Your task to perform on an android device: Clear the shopping cart on ebay. Image 0: 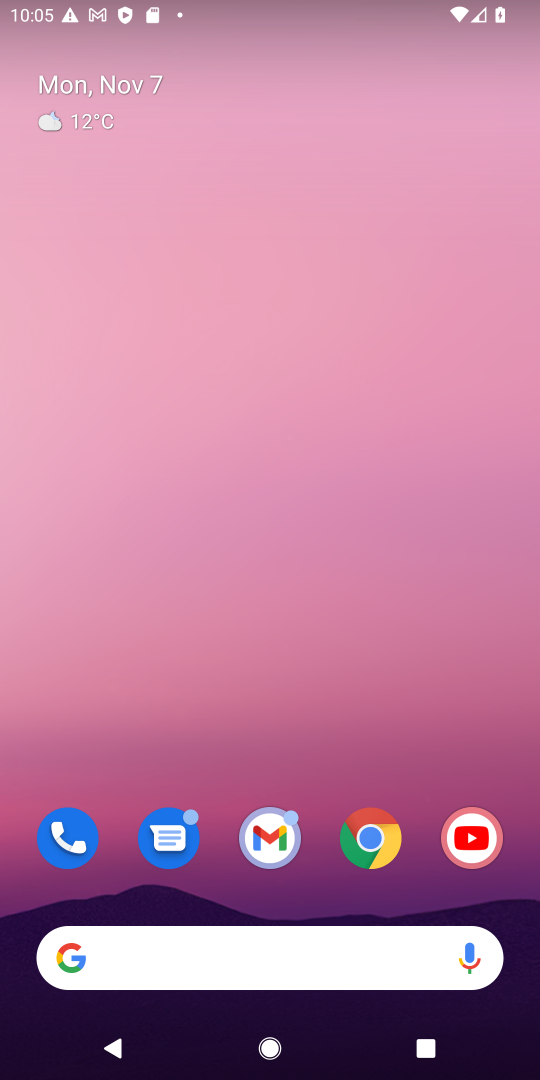
Step 0: click (373, 861)
Your task to perform on an android device: Clear the shopping cart on ebay. Image 1: 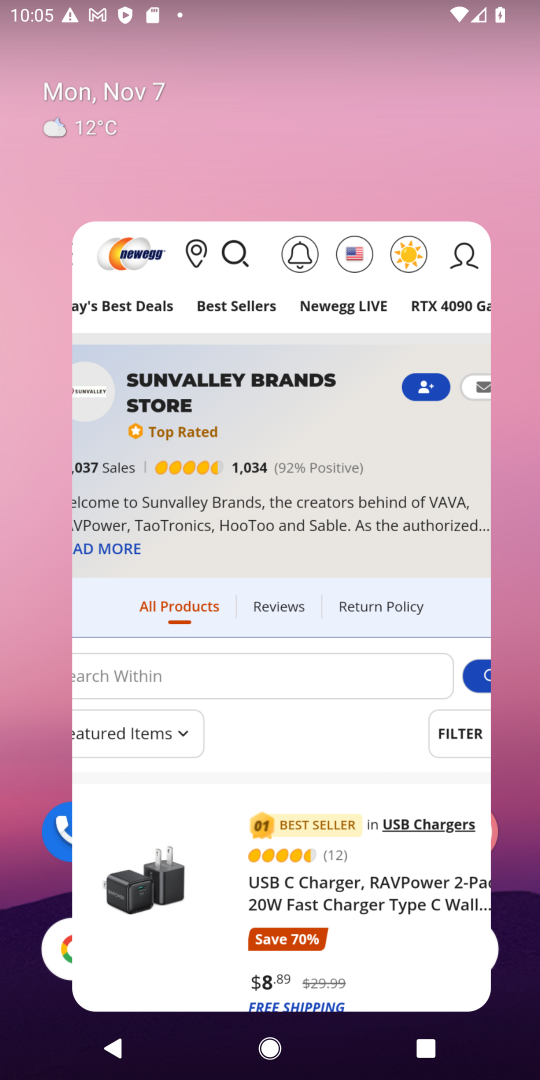
Step 1: click (373, 861)
Your task to perform on an android device: Clear the shopping cart on ebay. Image 2: 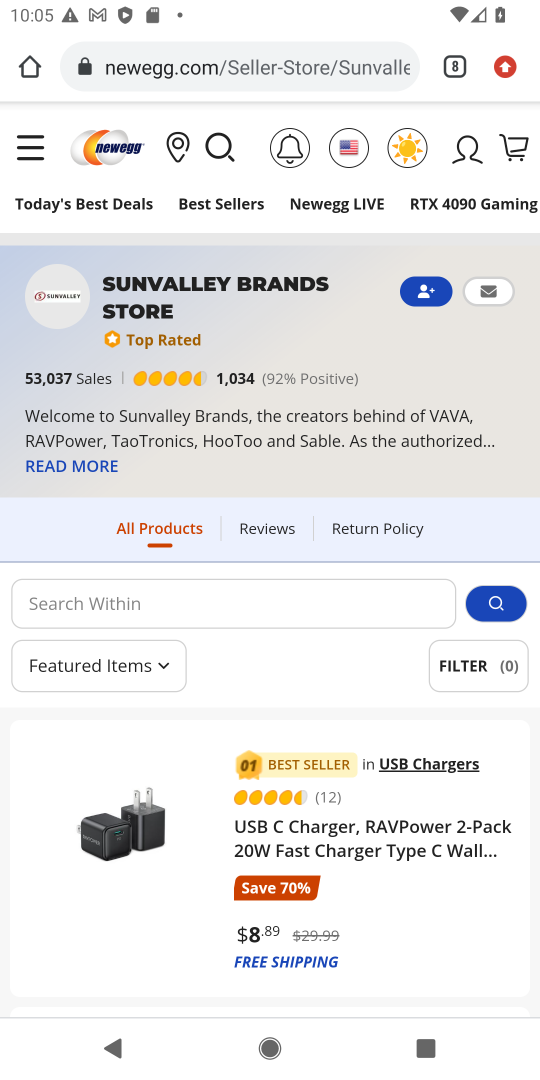
Step 2: click (451, 67)
Your task to perform on an android device: Clear the shopping cart on ebay. Image 3: 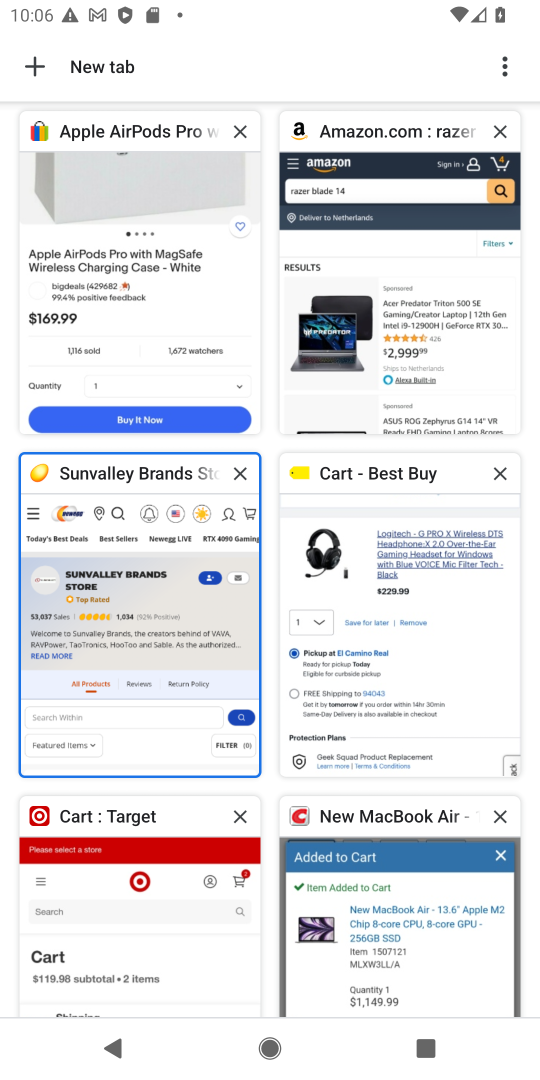
Step 3: click (122, 234)
Your task to perform on an android device: Clear the shopping cart on ebay. Image 4: 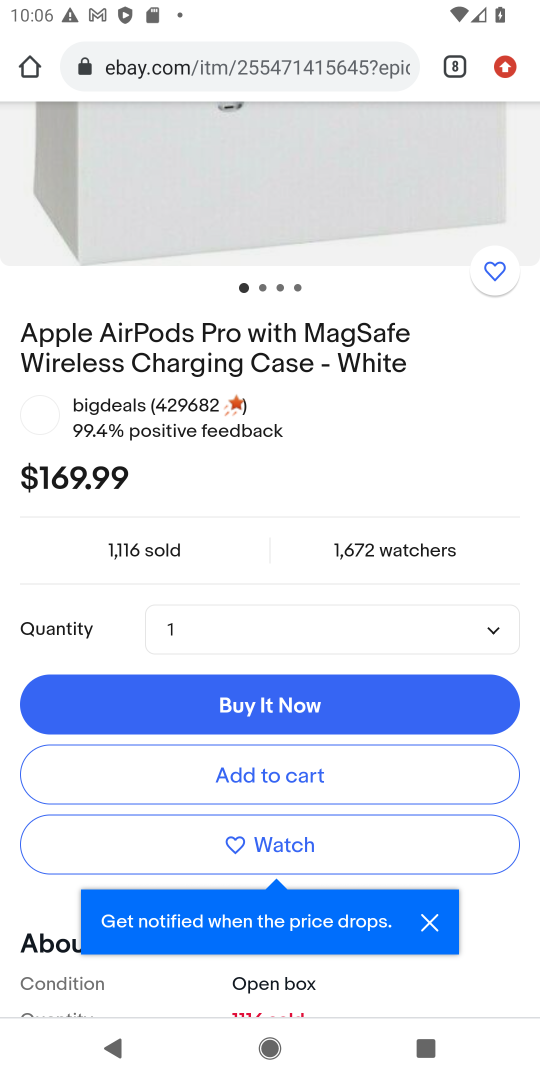
Step 4: drag from (427, 234) to (347, 1070)
Your task to perform on an android device: Clear the shopping cart on ebay. Image 5: 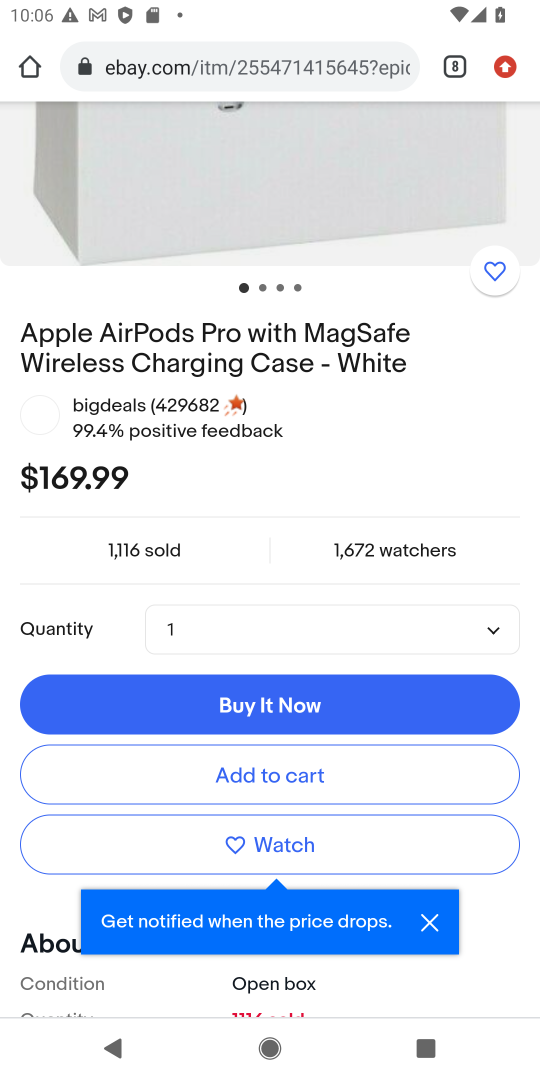
Step 5: drag from (427, 298) to (383, 1045)
Your task to perform on an android device: Clear the shopping cart on ebay. Image 6: 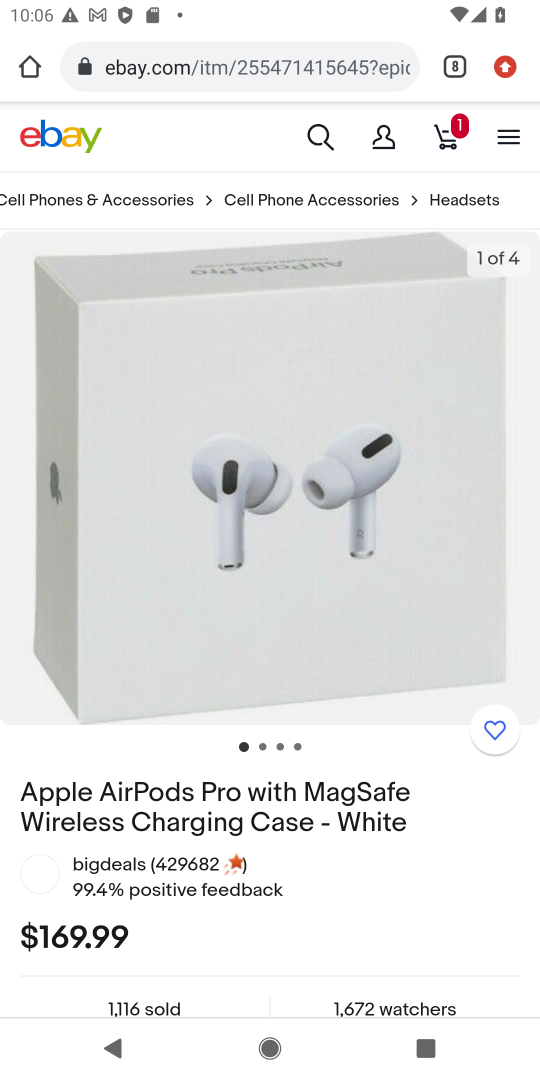
Step 6: click (454, 138)
Your task to perform on an android device: Clear the shopping cart on ebay. Image 7: 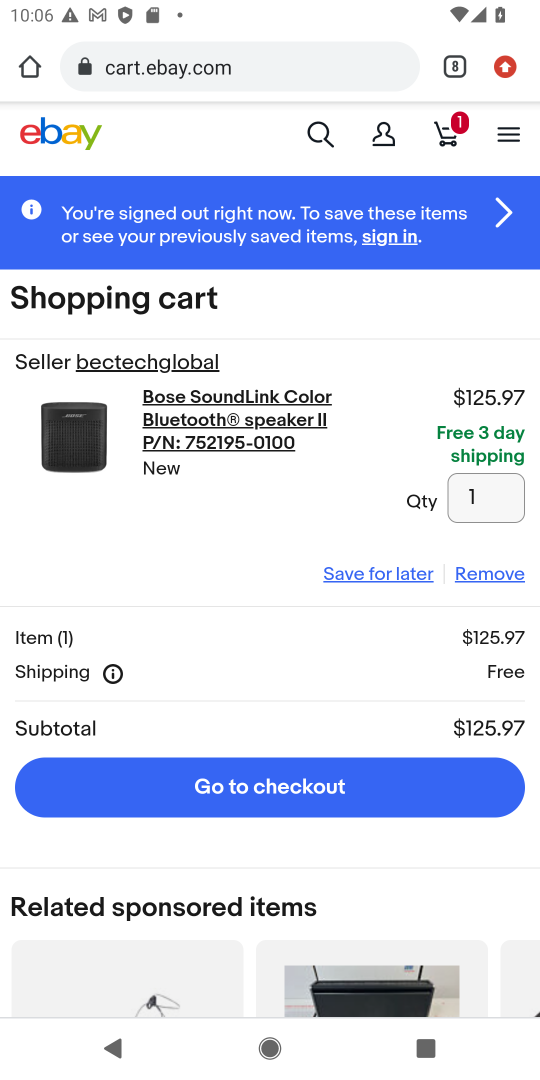
Step 7: task complete